Your task to perform on an android device: What's on my calendar today? Image 0: 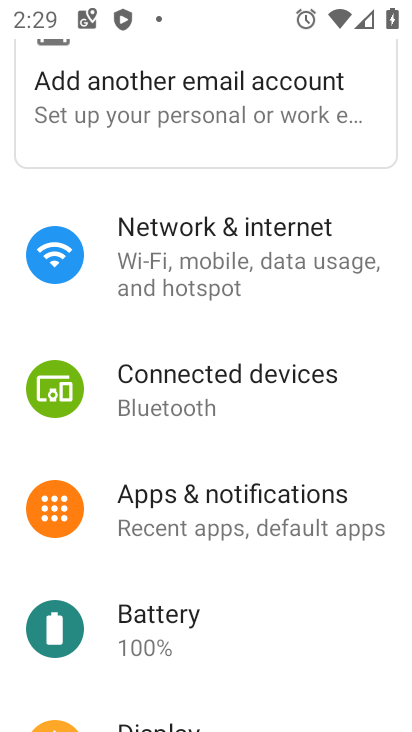
Step 0: press home button
Your task to perform on an android device: What's on my calendar today? Image 1: 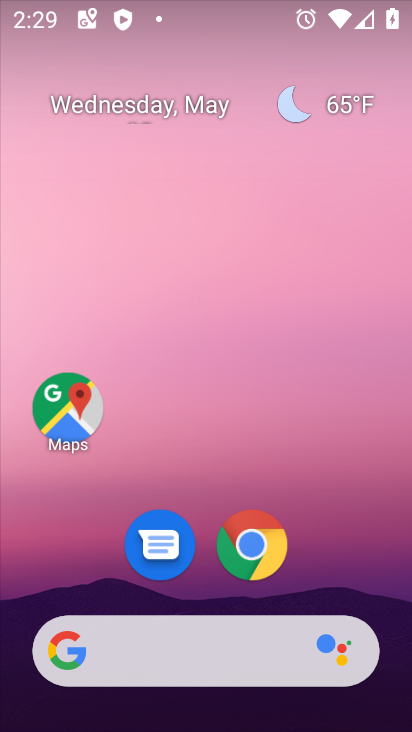
Step 1: click (162, 104)
Your task to perform on an android device: What's on my calendar today? Image 2: 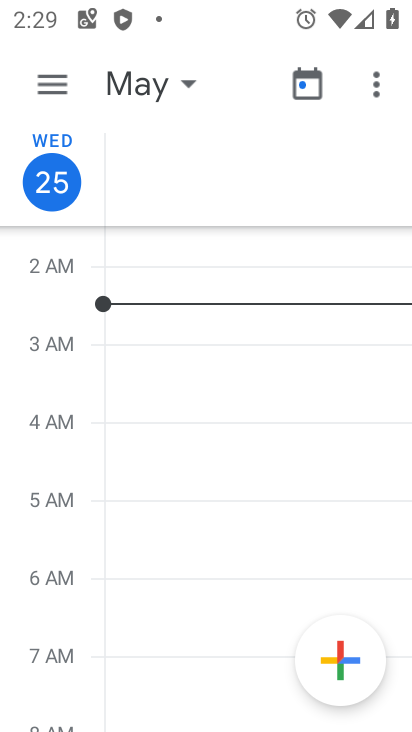
Step 2: task complete